Your task to perform on an android device: toggle priority inbox in the gmail app Image 0: 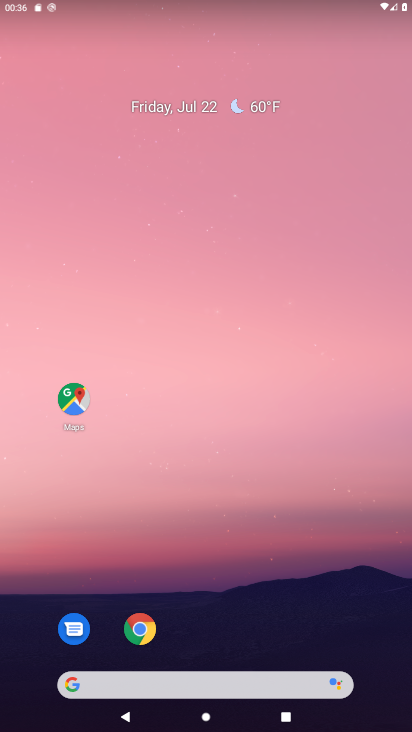
Step 0: drag from (261, 613) to (259, 223)
Your task to perform on an android device: toggle priority inbox in the gmail app Image 1: 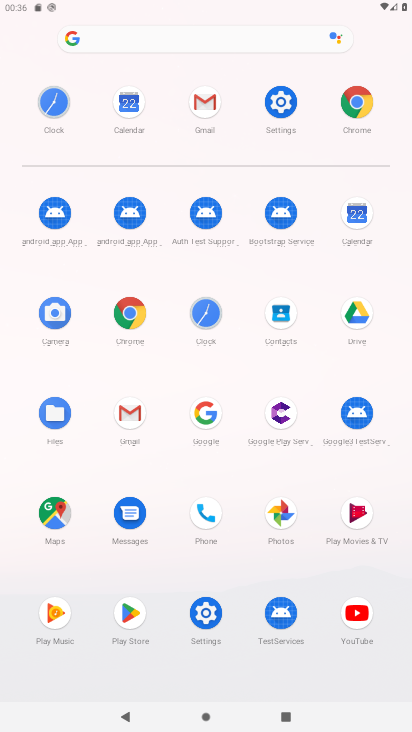
Step 1: click (210, 101)
Your task to perform on an android device: toggle priority inbox in the gmail app Image 2: 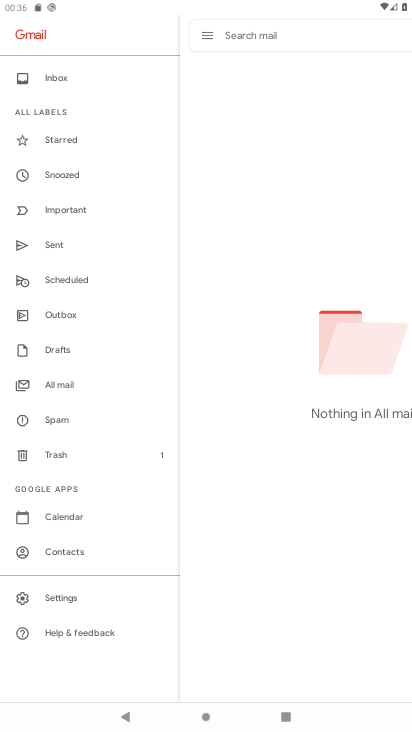
Step 2: click (68, 607)
Your task to perform on an android device: toggle priority inbox in the gmail app Image 3: 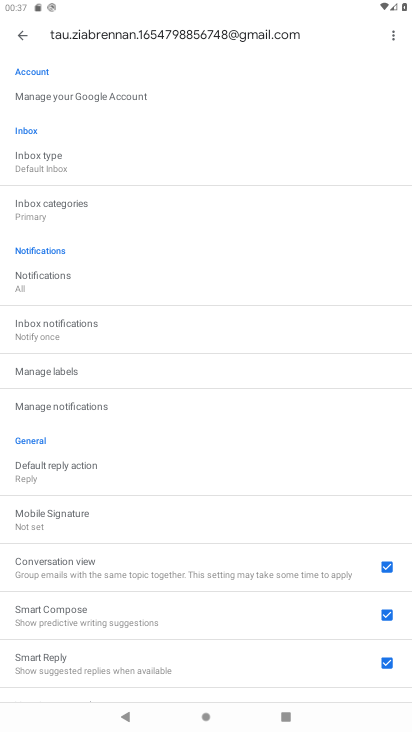
Step 3: click (61, 168)
Your task to perform on an android device: toggle priority inbox in the gmail app Image 4: 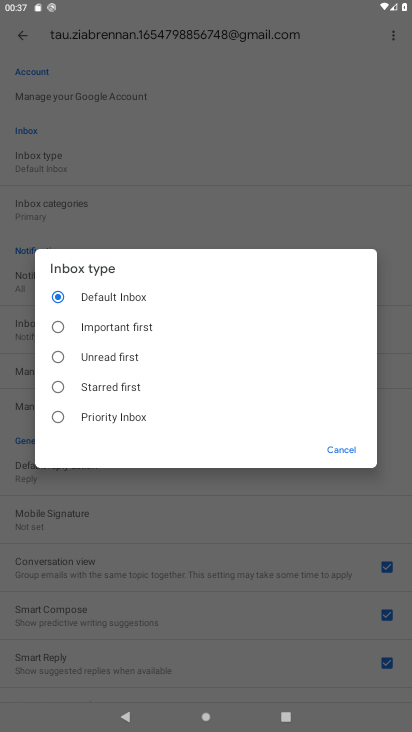
Step 4: click (119, 407)
Your task to perform on an android device: toggle priority inbox in the gmail app Image 5: 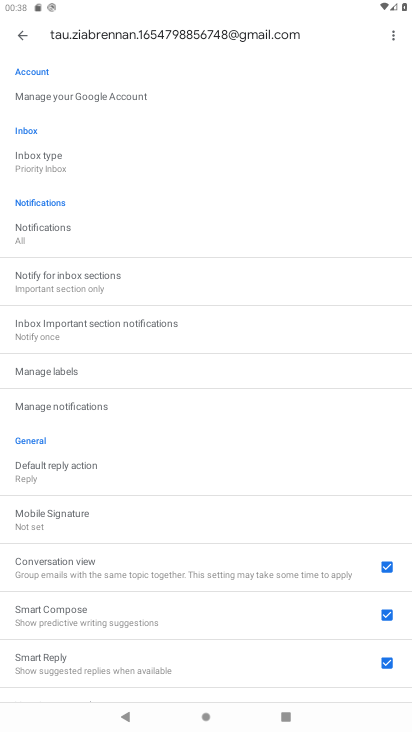
Step 5: task complete